Your task to perform on an android device: Go to ESPN.com Image 0: 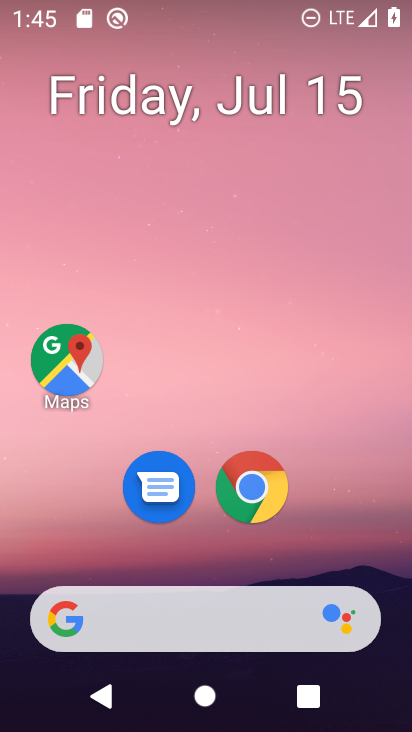
Step 0: click (234, 468)
Your task to perform on an android device: Go to ESPN.com Image 1: 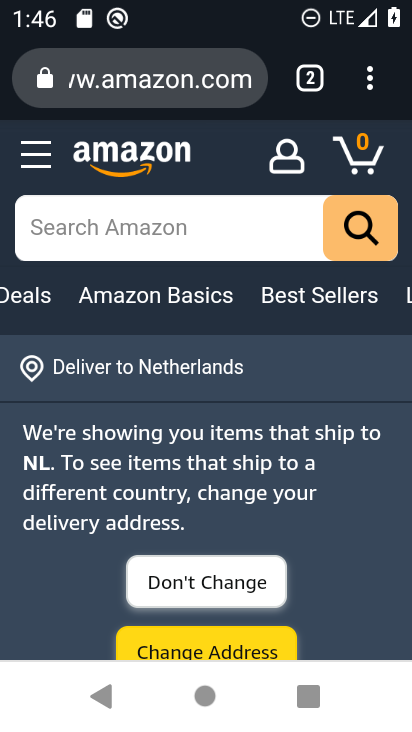
Step 1: click (243, 70)
Your task to perform on an android device: Go to ESPN.com Image 2: 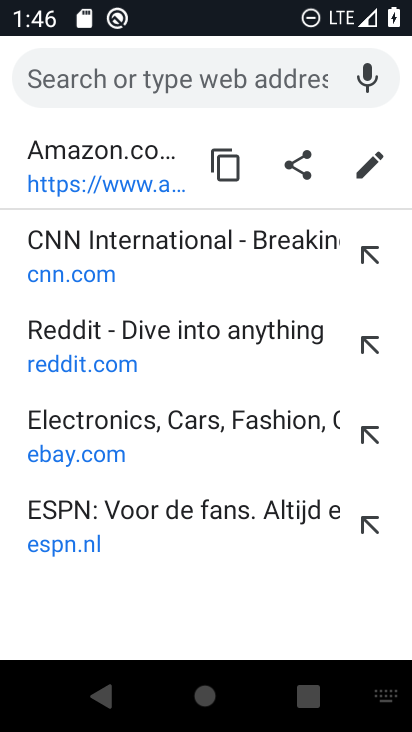
Step 2: type "espn"
Your task to perform on an android device: Go to ESPN.com Image 3: 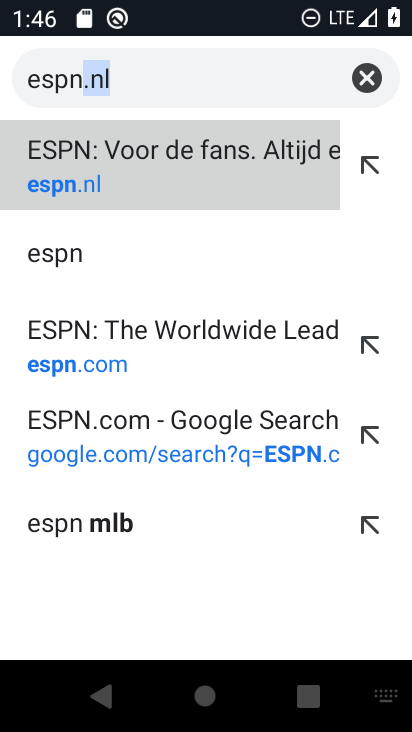
Step 3: click (89, 195)
Your task to perform on an android device: Go to ESPN.com Image 4: 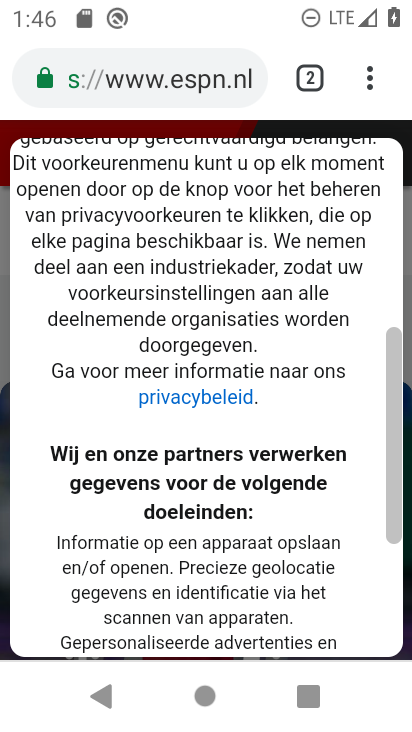
Step 4: task complete